Your task to perform on an android device: Open Google Image 0: 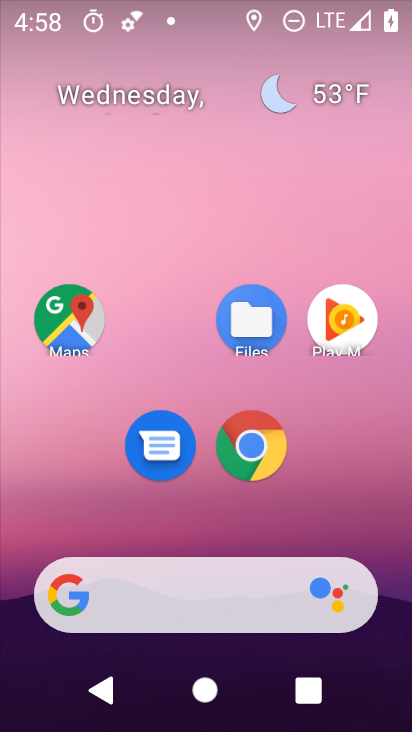
Step 0: click (253, 592)
Your task to perform on an android device: Open Google Image 1: 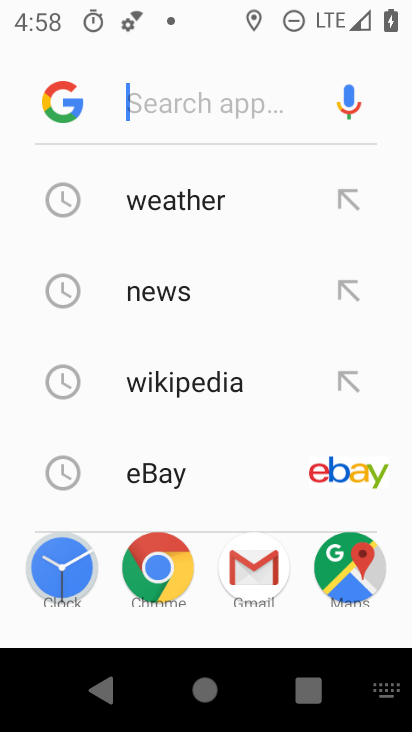
Step 1: task complete